Your task to perform on an android device: turn on wifi Image 0: 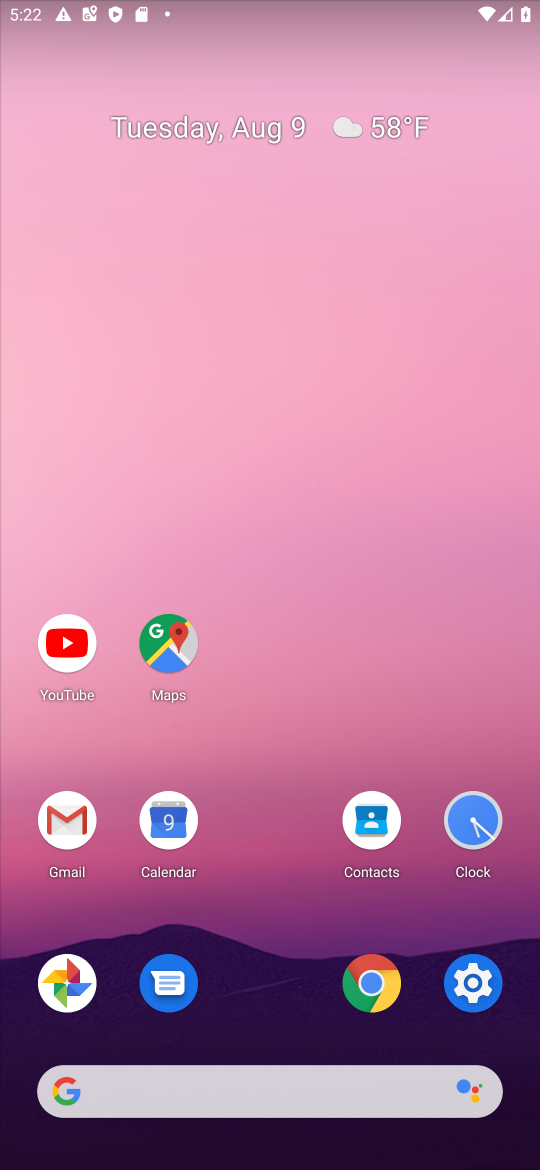
Step 0: click (472, 983)
Your task to perform on an android device: turn on wifi Image 1: 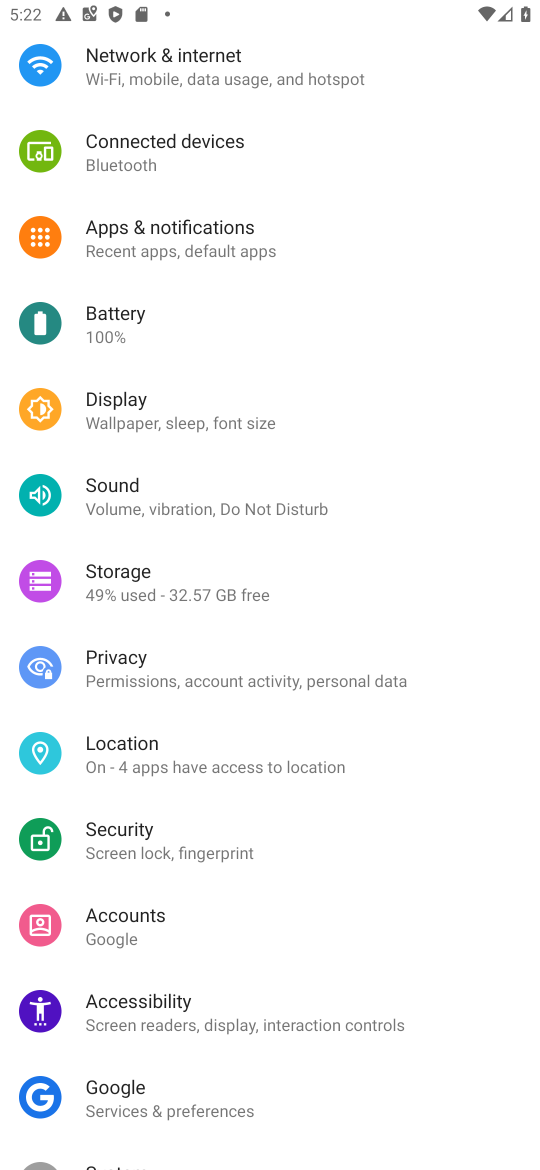
Step 1: click (181, 56)
Your task to perform on an android device: turn on wifi Image 2: 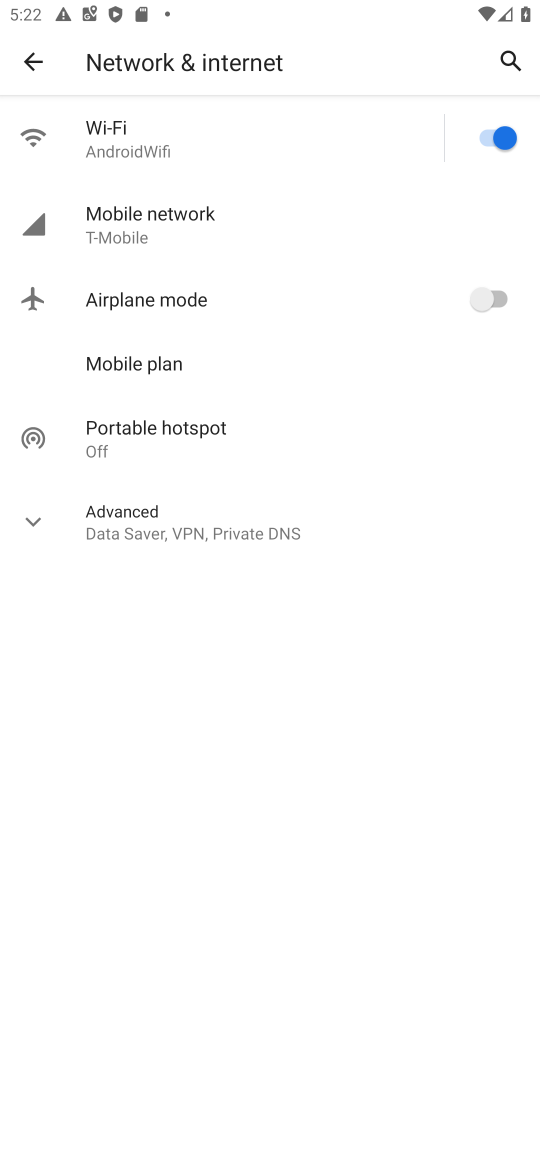
Step 2: task complete